Your task to perform on an android device: make emails show in primary in the gmail app Image 0: 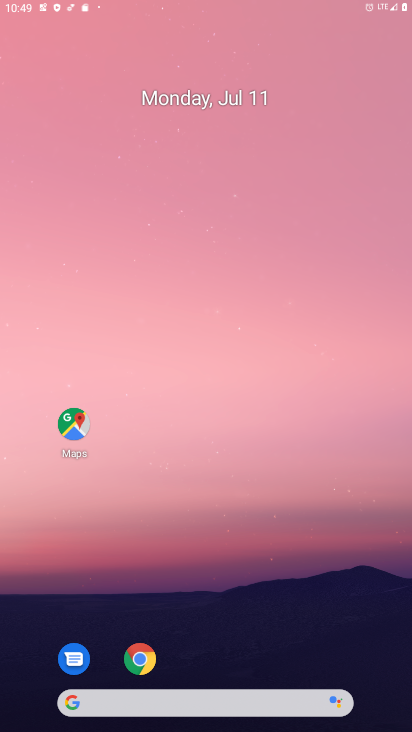
Step 0: click (222, 148)
Your task to perform on an android device: make emails show in primary in the gmail app Image 1: 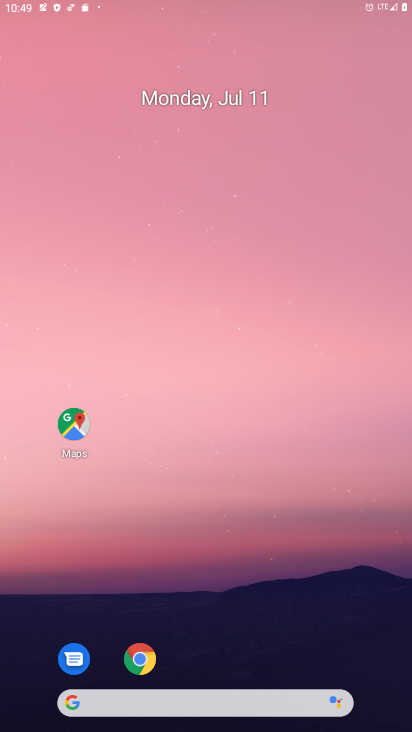
Step 1: drag from (221, 587) to (203, 179)
Your task to perform on an android device: make emails show in primary in the gmail app Image 2: 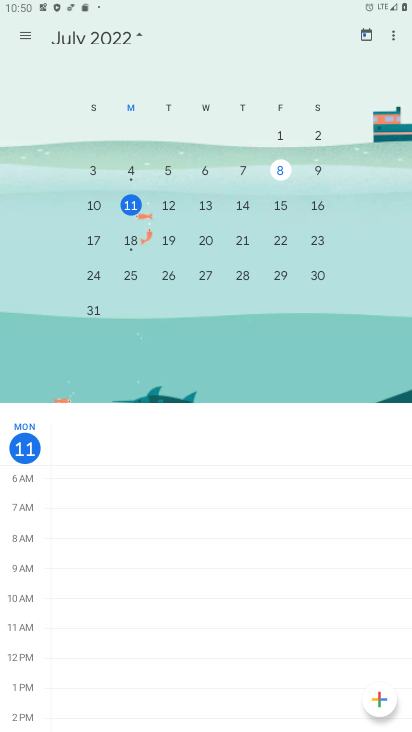
Step 2: press home button
Your task to perform on an android device: make emails show in primary in the gmail app Image 3: 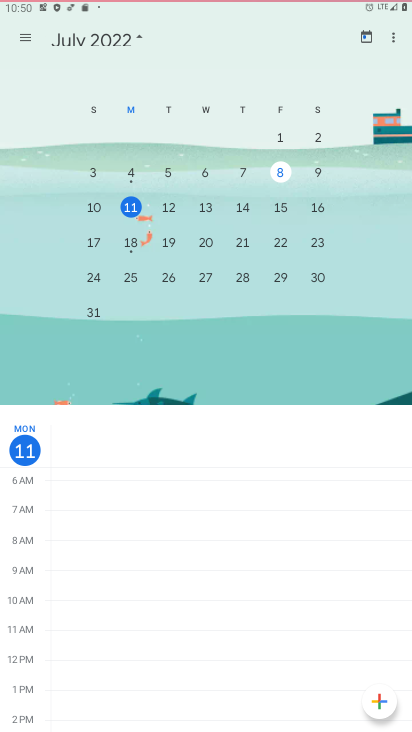
Step 3: drag from (195, 574) to (311, 175)
Your task to perform on an android device: make emails show in primary in the gmail app Image 4: 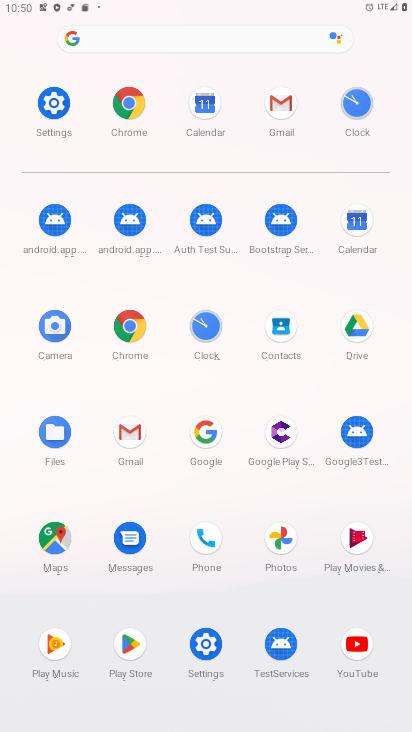
Step 4: click (120, 434)
Your task to perform on an android device: make emails show in primary in the gmail app Image 5: 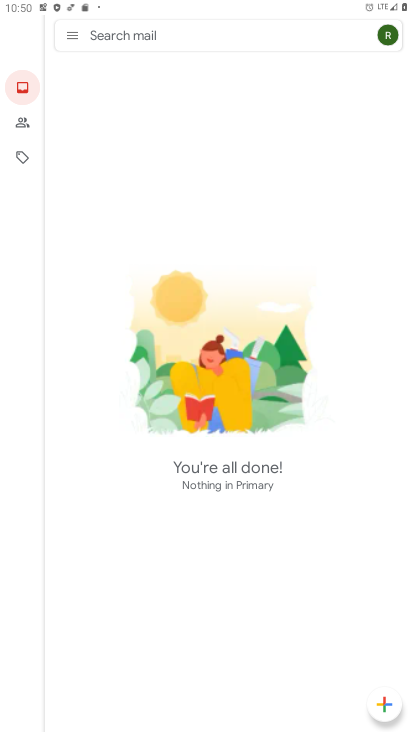
Step 5: press home button
Your task to perform on an android device: make emails show in primary in the gmail app Image 6: 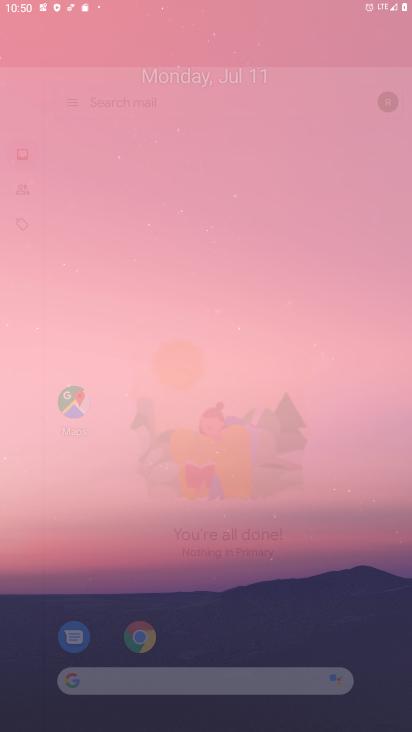
Step 6: drag from (243, 593) to (304, 118)
Your task to perform on an android device: make emails show in primary in the gmail app Image 7: 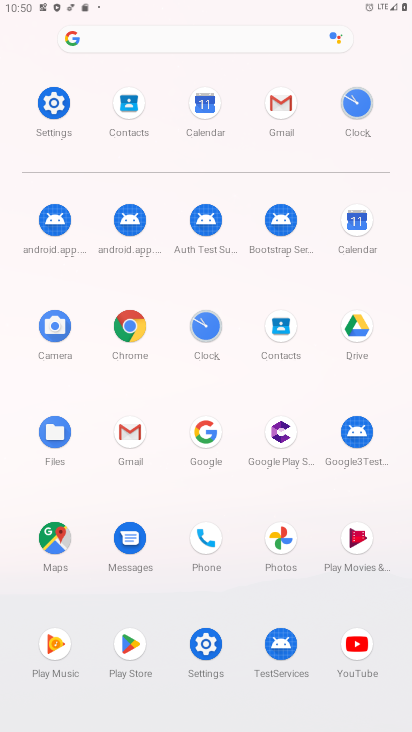
Step 7: click (124, 438)
Your task to perform on an android device: make emails show in primary in the gmail app Image 8: 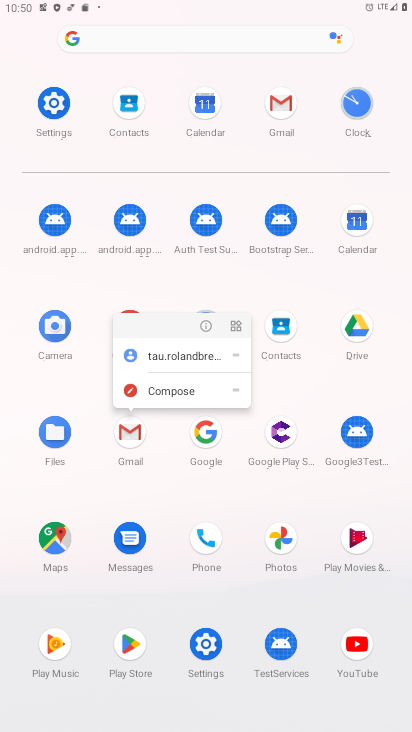
Step 8: click (195, 329)
Your task to perform on an android device: make emails show in primary in the gmail app Image 9: 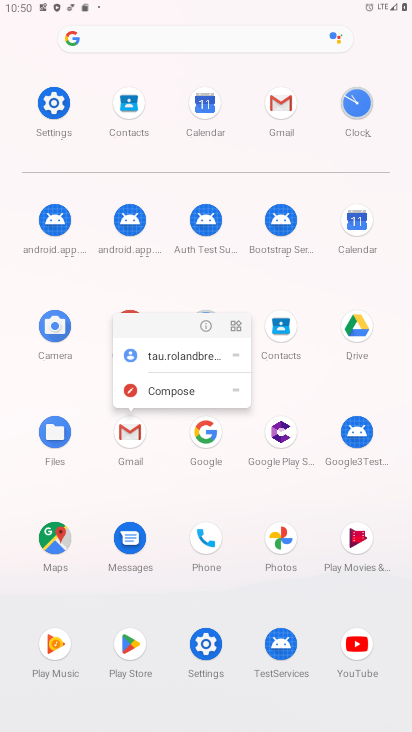
Step 9: click (201, 325)
Your task to perform on an android device: make emails show in primary in the gmail app Image 10: 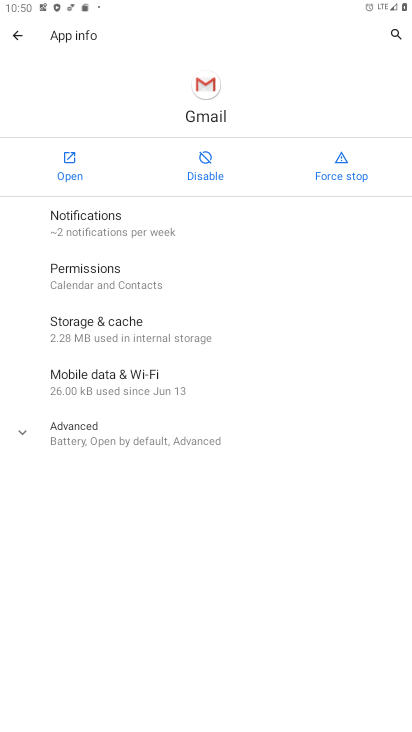
Step 10: click (69, 161)
Your task to perform on an android device: make emails show in primary in the gmail app Image 11: 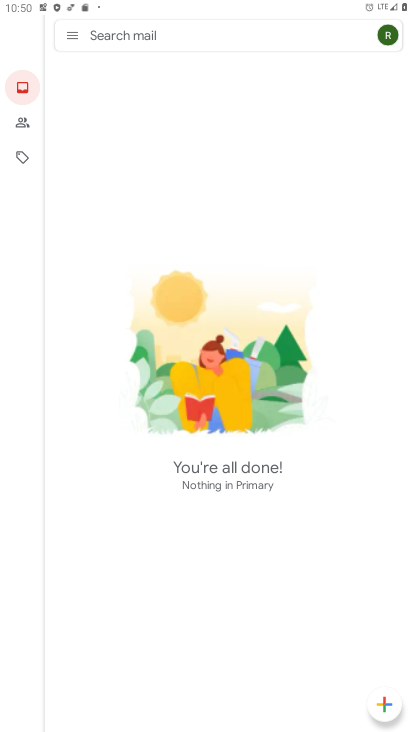
Step 11: drag from (229, 480) to (233, 340)
Your task to perform on an android device: make emails show in primary in the gmail app Image 12: 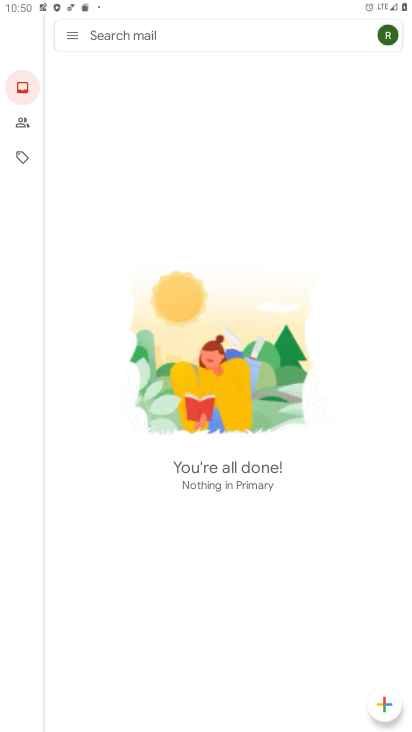
Step 12: click (235, 229)
Your task to perform on an android device: make emails show in primary in the gmail app Image 13: 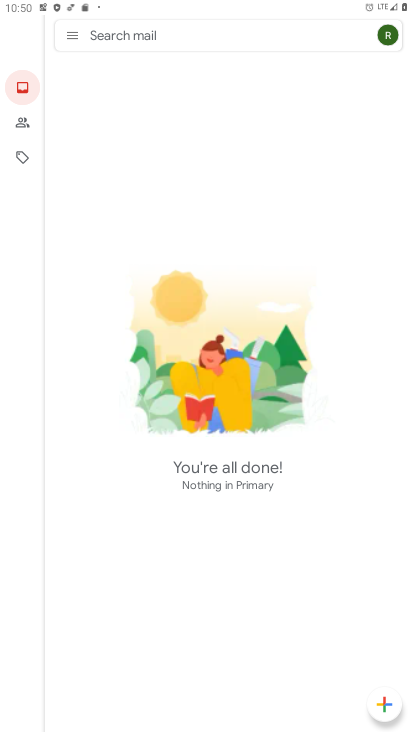
Step 13: click (235, 229)
Your task to perform on an android device: make emails show in primary in the gmail app Image 14: 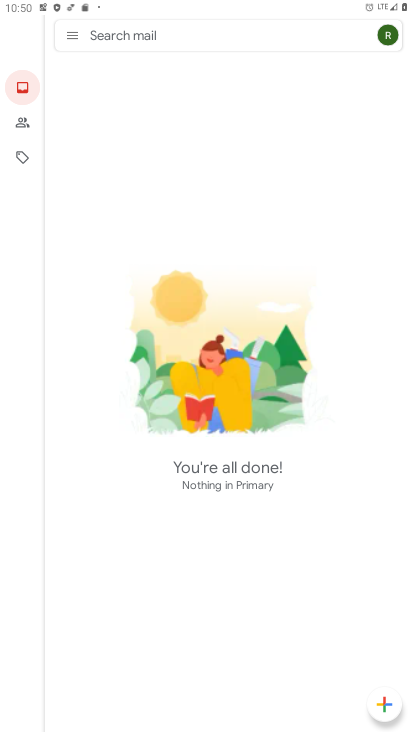
Step 14: click (192, 533)
Your task to perform on an android device: make emails show in primary in the gmail app Image 15: 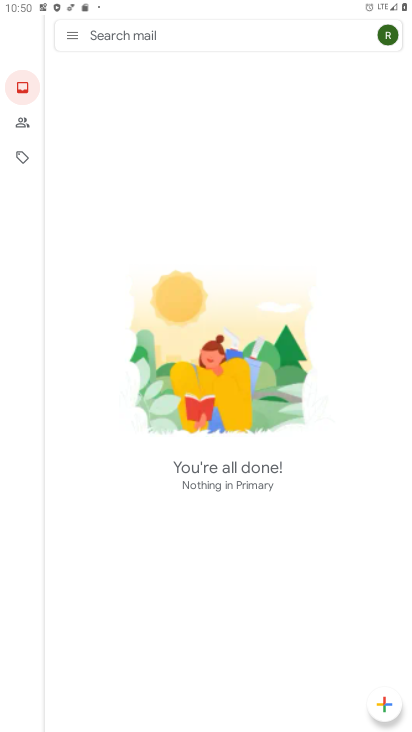
Step 15: click (308, 165)
Your task to perform on an android device: make emails show in primary in the gmail app Image 16: 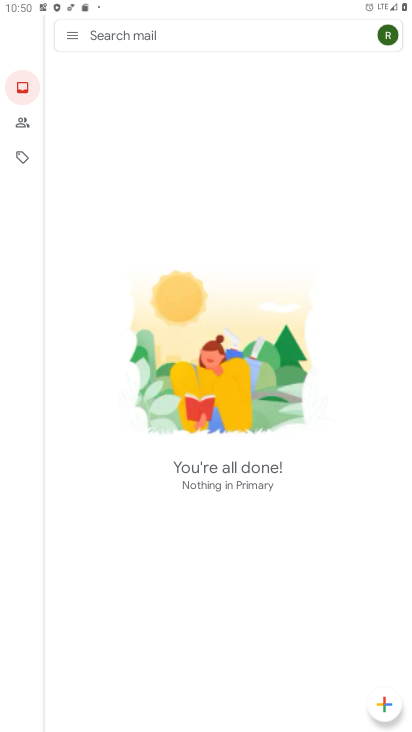
Step 16: click (236, 613)
Your task to perform on an android device: make emails show in primary in the gmail app Image 17: 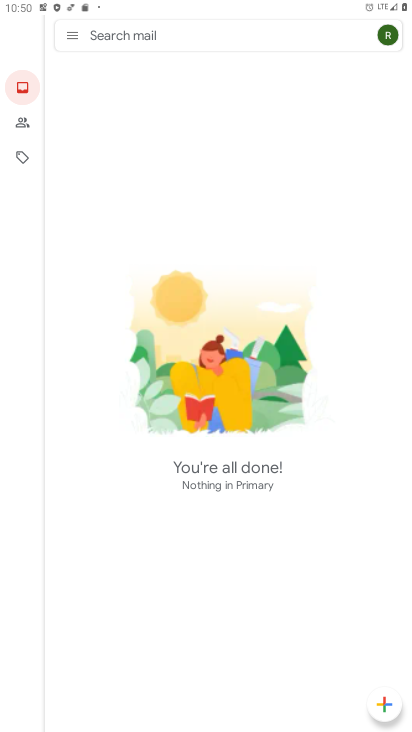
Step 17: click (256, 569)
Your task to perform on an android device: make emails show in primary in the gmail app Image 18: 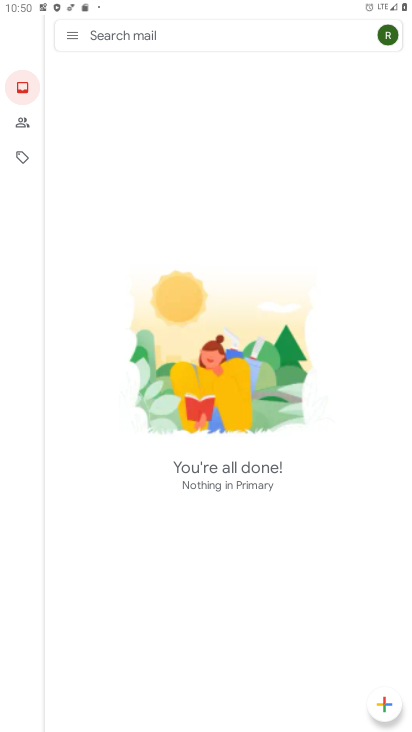
Step 18: click (76, 35)
Your task to perform on an android device: make emails show in primary in the gmail app Image 19: 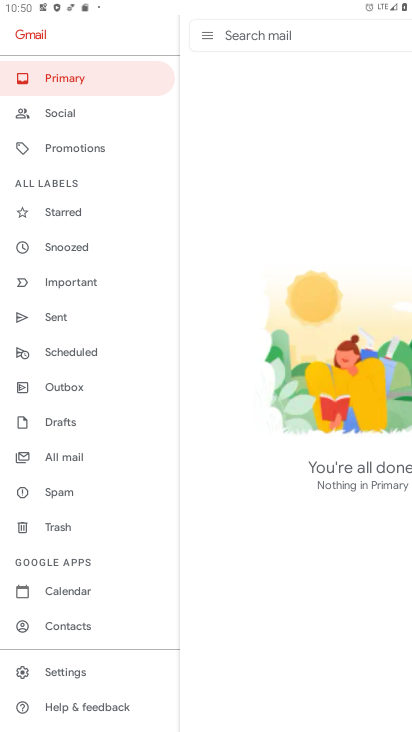
Step 19: click (55, 81)
Your task to perform on an android device: make emails show in primary in the gmail app Image 20: 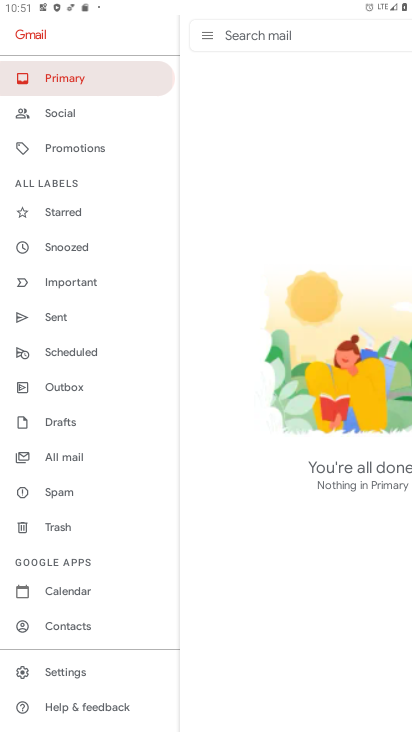
Step 20: click (277, 124)
Your task to perform on an android device: make emails show in primary in the gmail app Image 21: 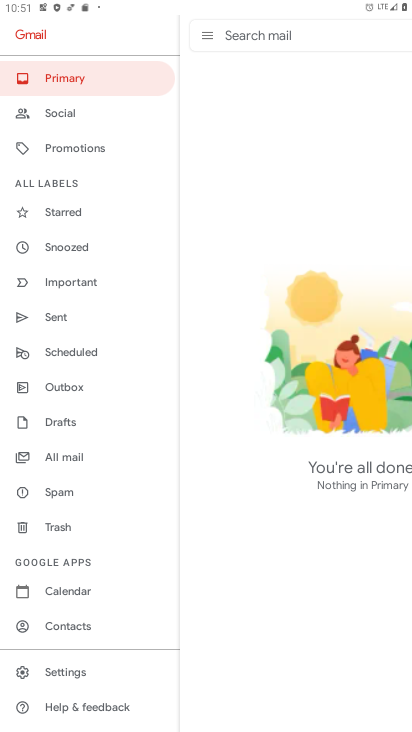
Step 21: click (202, 32)
Your task to perform on an android device: make emails show in primary in the gmail app Image 22: 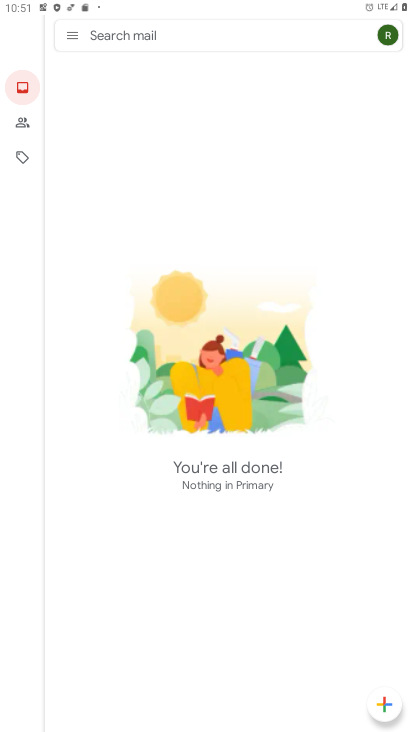
Step 22: task complete